Your task to perform on an android device: Show me popular videos on Youtube Image 0: 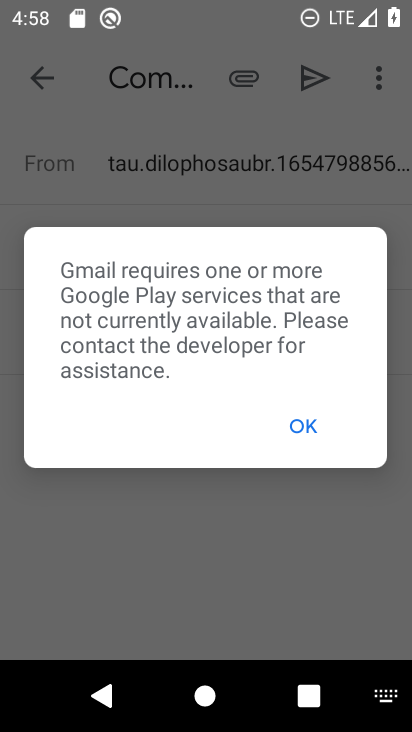
Step 0: press back button
Your task to perform on an android device: Show me popular videos on Youtube Image 1: 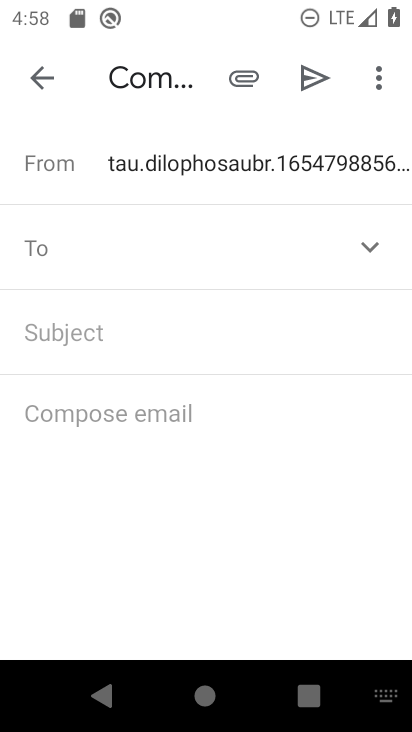
Step 1: press back button
Your task to perform on an android device: Show me popular videos on Youtube Image 2: 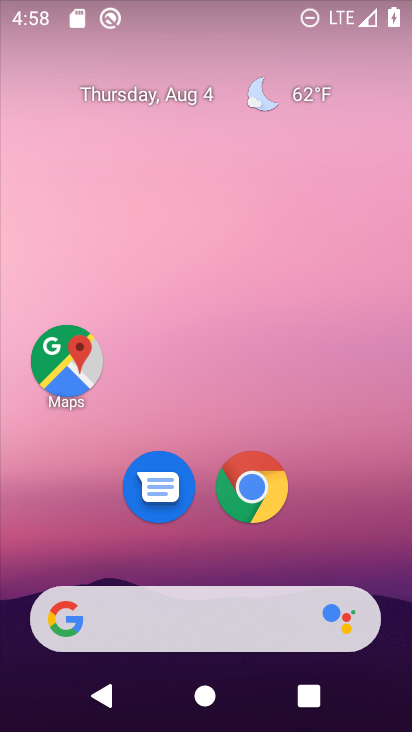
Step 2: drag from (46, 561) to (230, 8)
Your task to perform on an android device: Show me popular videos on Youtube Image 3: 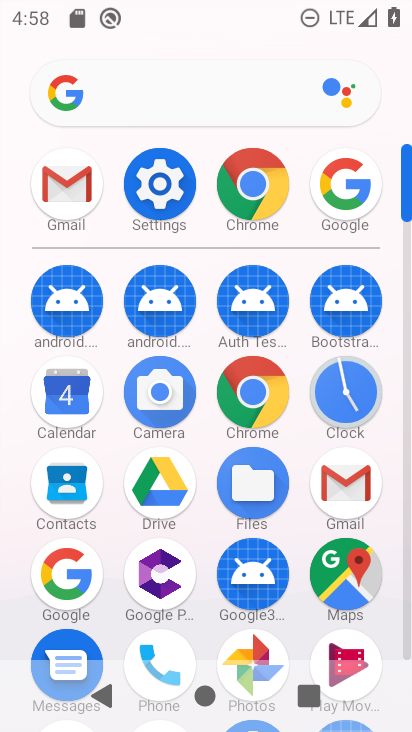
Step 3: drag from (166, 594) to (226, 23)
Your task to perform on an android device: Show me popular videos on Youtube Image 4: 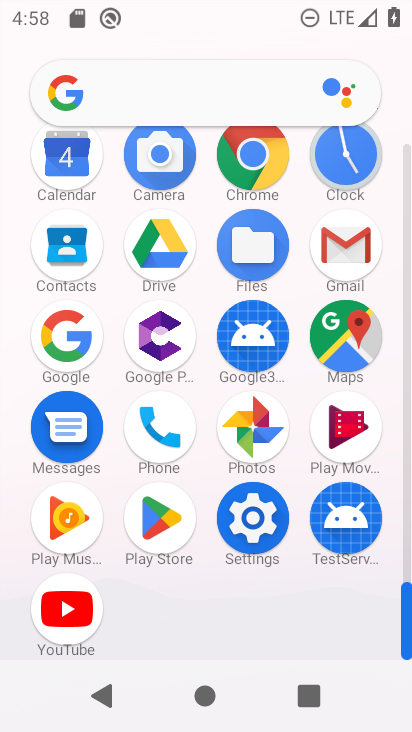
Step 4: click (68, 602)
Your task to perform on an android device: Show me popular videos on Youtube Image 5: 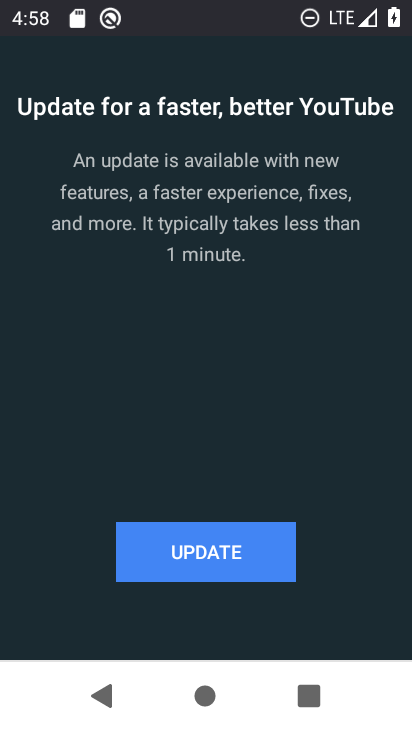
Step 5: task complete